Your task to perform on an android device: Toggle the flashlight Image 0: 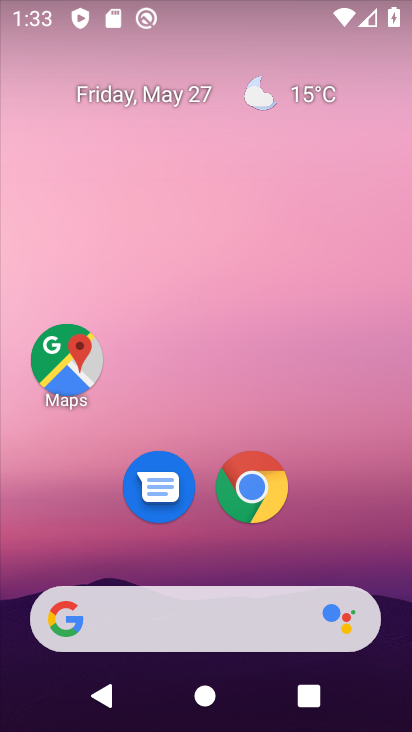
Step 0: drag from (358, 494) to (262, 83)
Your task to perform on an android device: Toggle the flashlight Image 1: 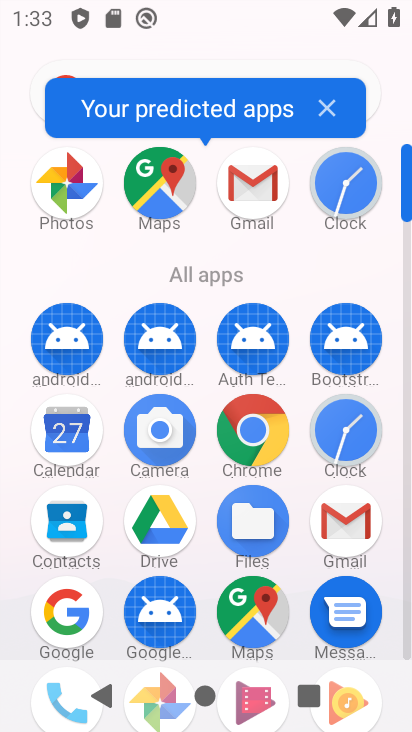
Step 1: drag from (201, 585) to (223, 168)
Your task to perform on an android device: Toggle the flashlight Image 2: 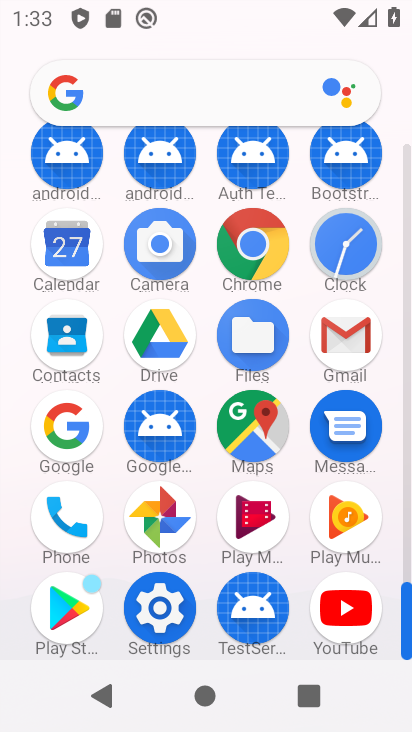
Step 2: click (169, 605)
Your task to perform on an android device: Toggle the flashlight Image 3: 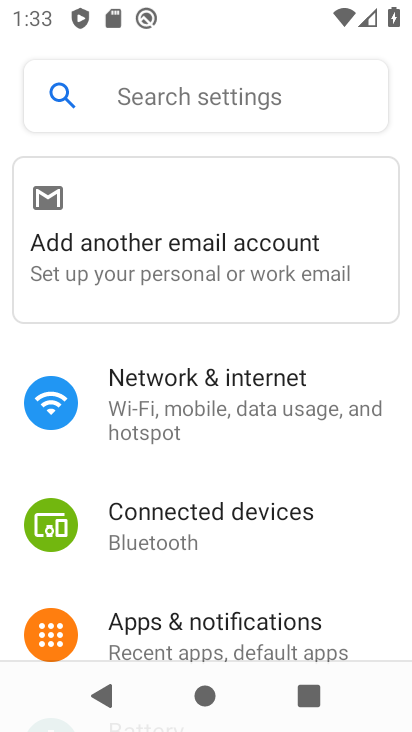
Step 3: drag from (345, 372) to (340, 15)
Your task to perform on an android device: Toggle the flashlight Image 4: 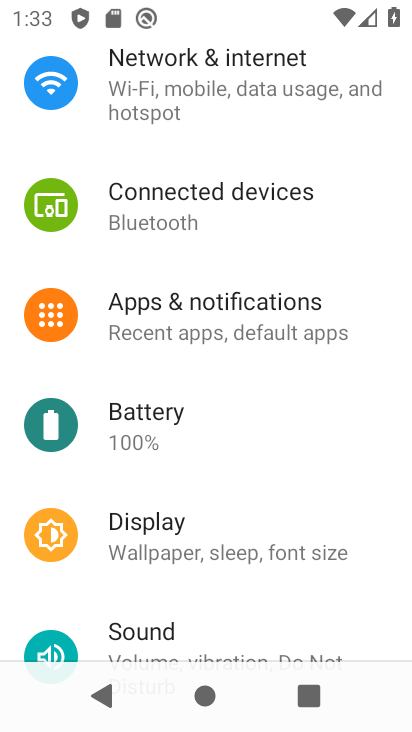
Step 4: click (205, 539)
Your task to perform on an android device: Toggle the flashlight Image 5: 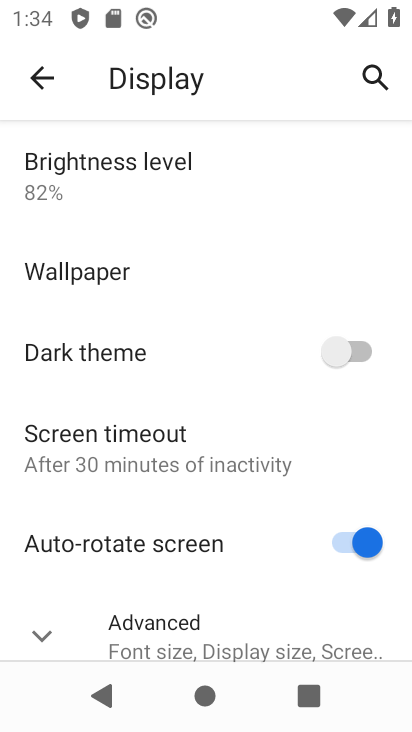
Step 5: task complete